Your task to perform on an android device: Show the shopping cart on costco.com. Add jbl flip 4 to the cart on costco.com Image 0: 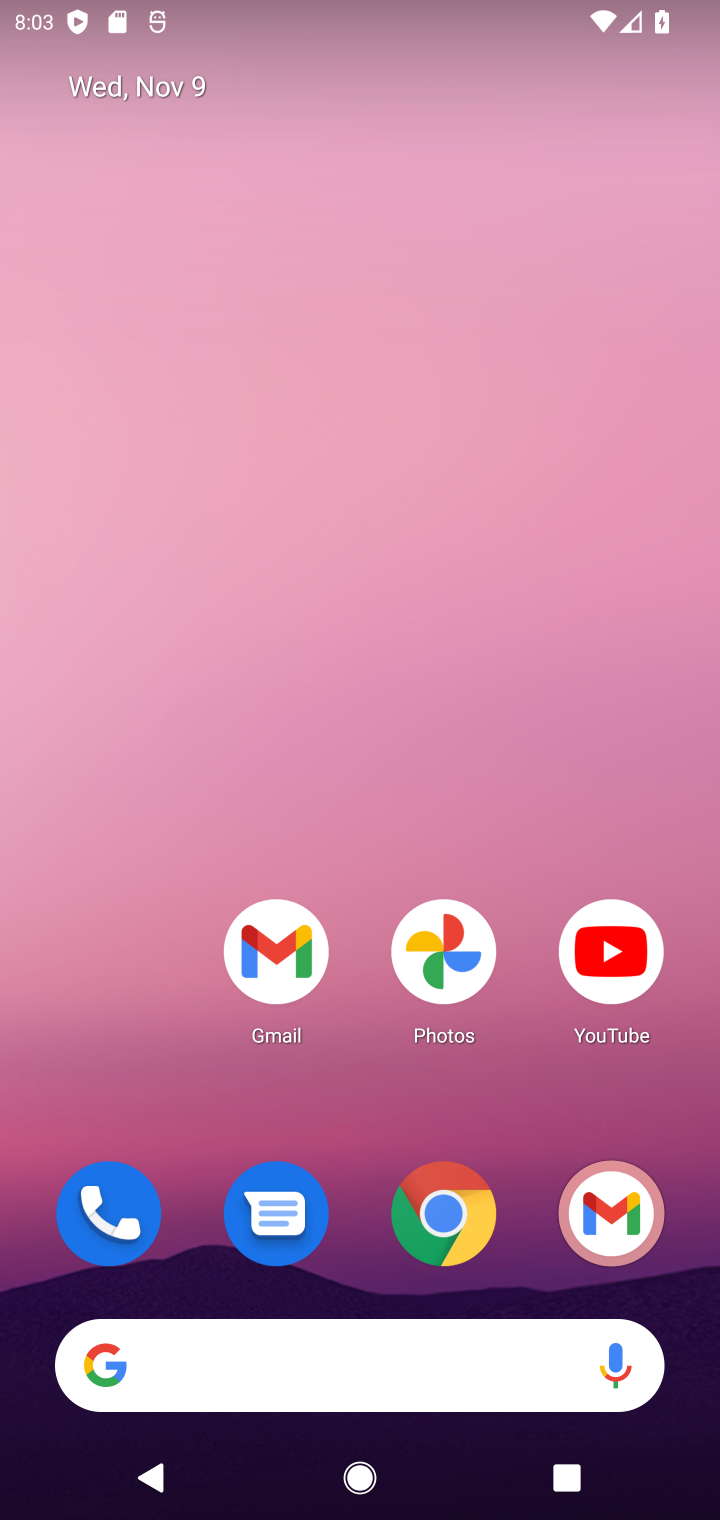
Step 0: click (454, 1206)
Your task to perform on an android device: Show the shopping cart on costco.com. Add jbl flip 4 to the cart on costco.com Image 1: 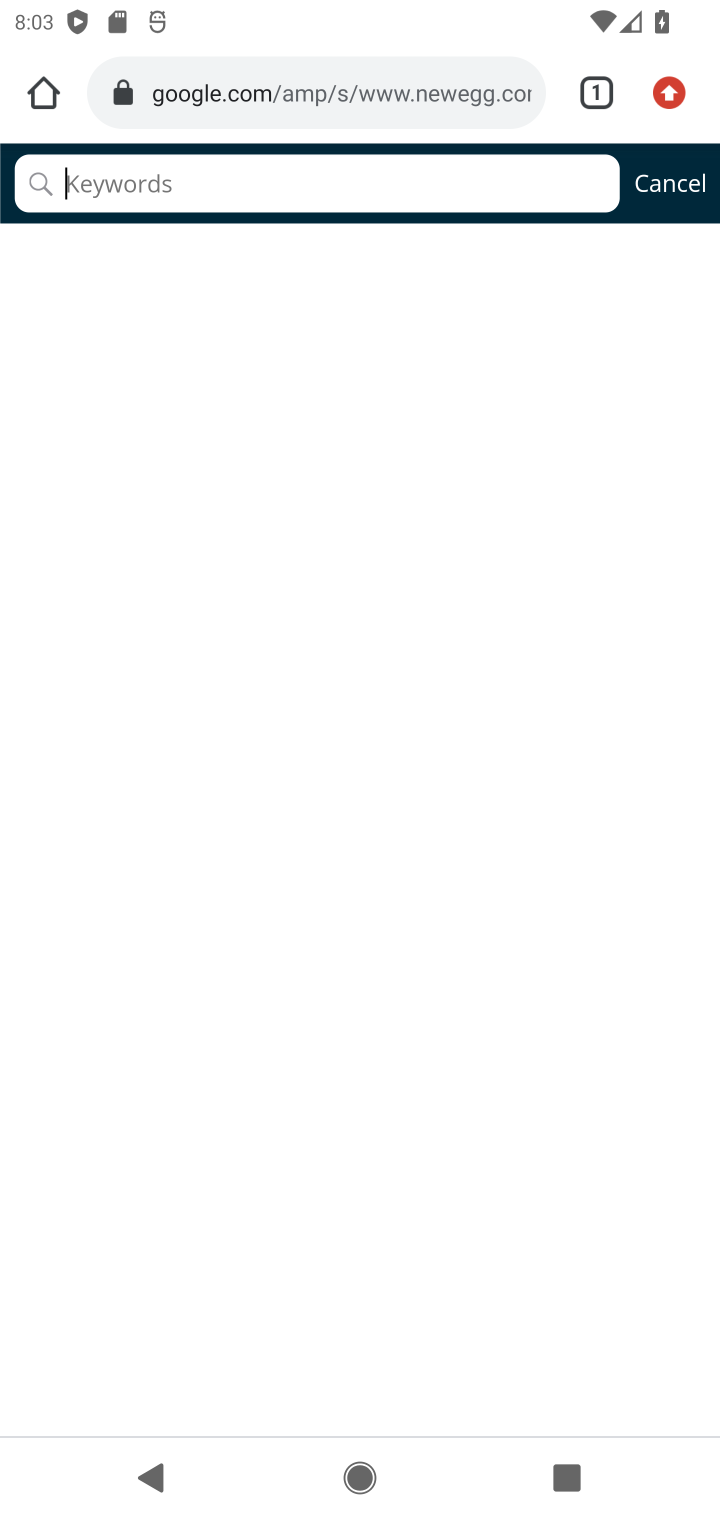
Step 1: click (326, 88)
Your task to perform on an android device: Show the shopping cart on costco.com. Add jbl flip 4 to the cart on costco.com Image 2: 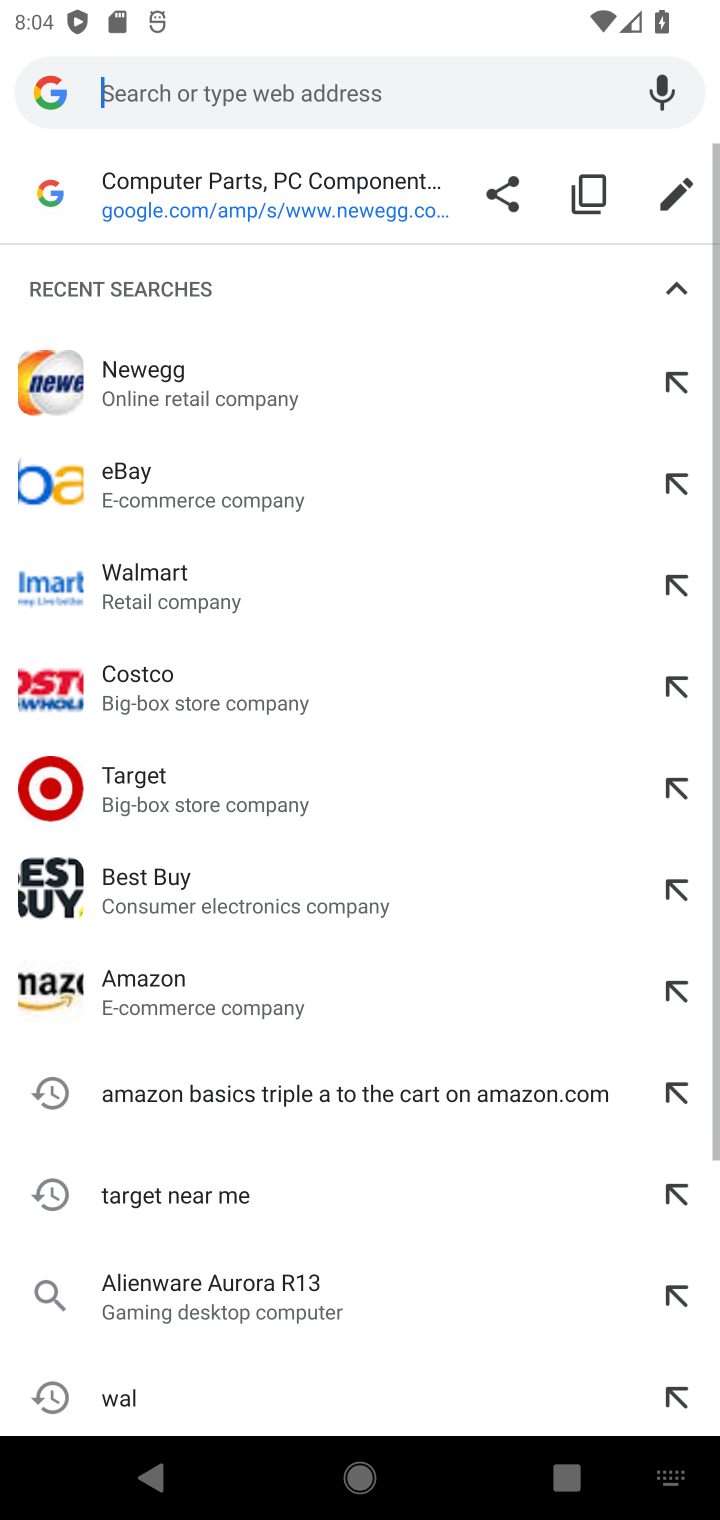
Step 2: click (149, 696)
Your task to perform on an android device: Show the shopping cart on costco.com. Add jbl flip 4 to the cart on costco.com Image 3: 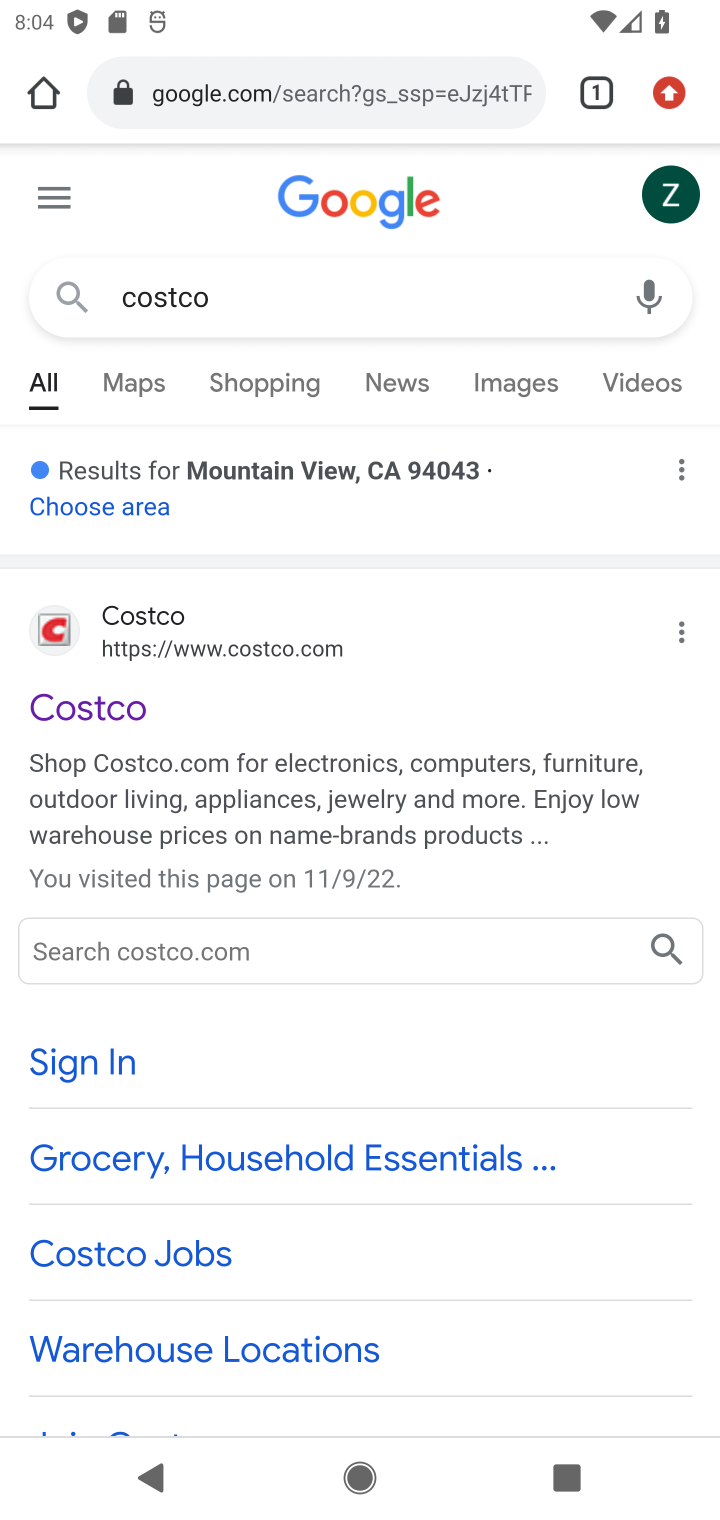
Step 3: click (128, 715)
Your task to perform on an android device: Show the shopping cart on costco.com. Add jbl flip 4 to the cart on costco.com Image 4: 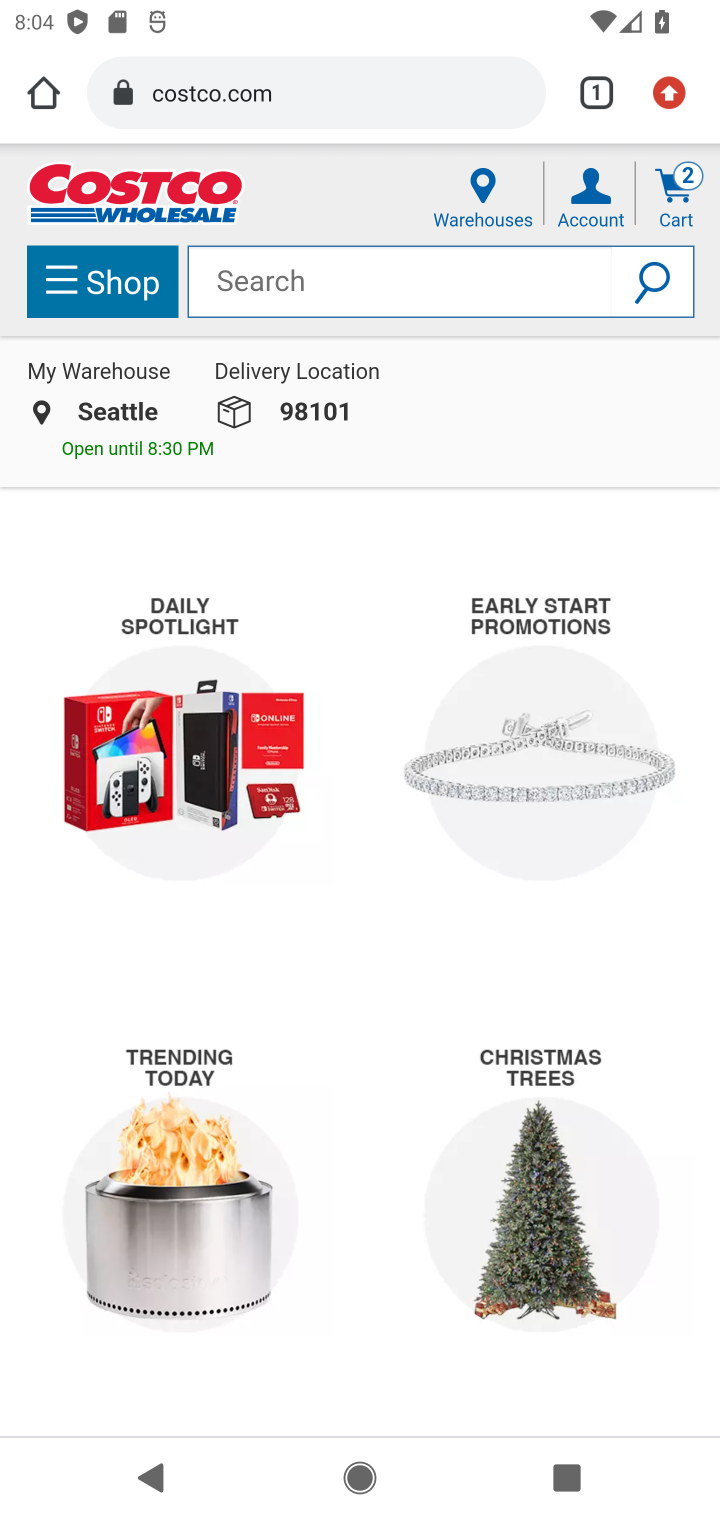
Step 4: click (269, 283)
Your task to perform on an android device: Show the shopping cart on costco.com. Add jbl flip 4 to the cart on costco.com Image 5: 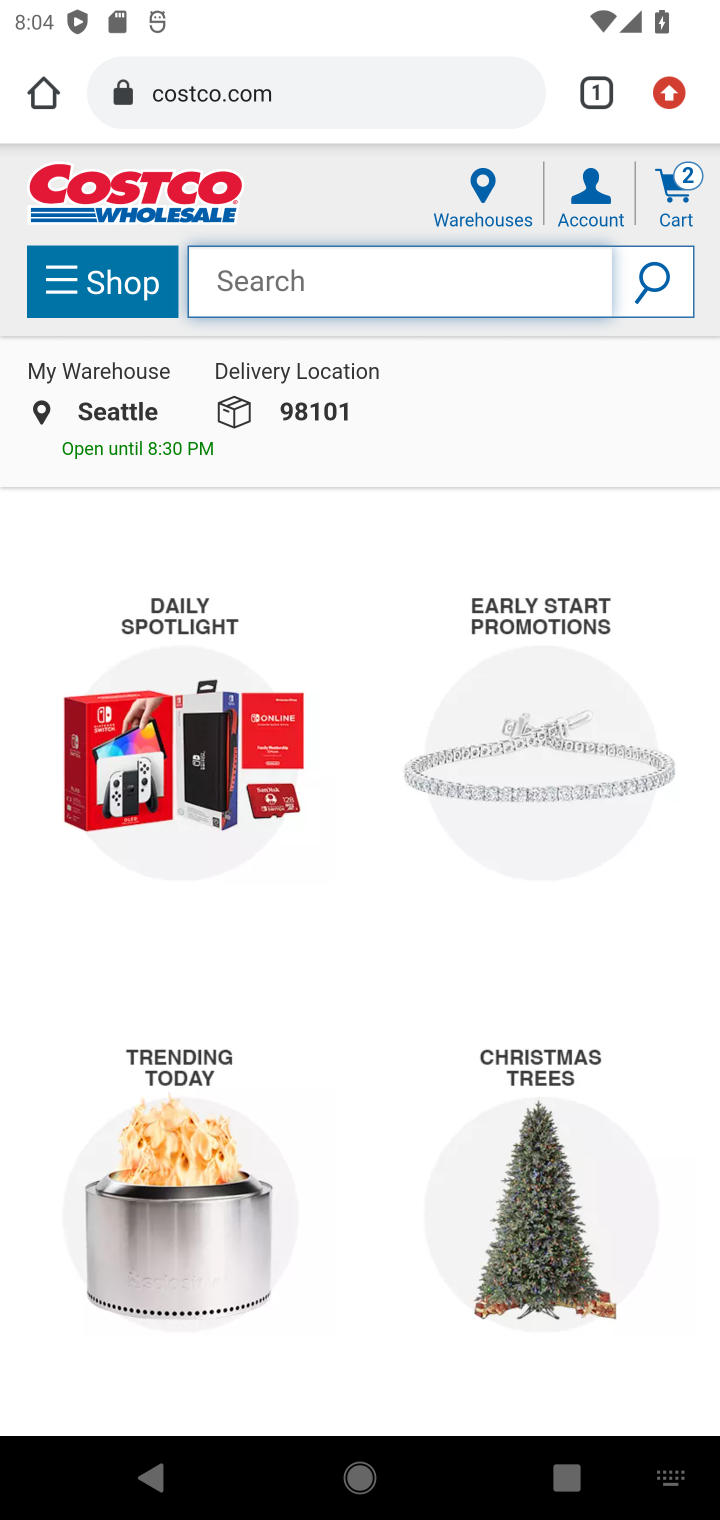
Step 5: type "costco"
Your task to perform on an android device: Show the shopping cart on costco.com. Add jbl flip 4 to the cart on costco.com Image 6: 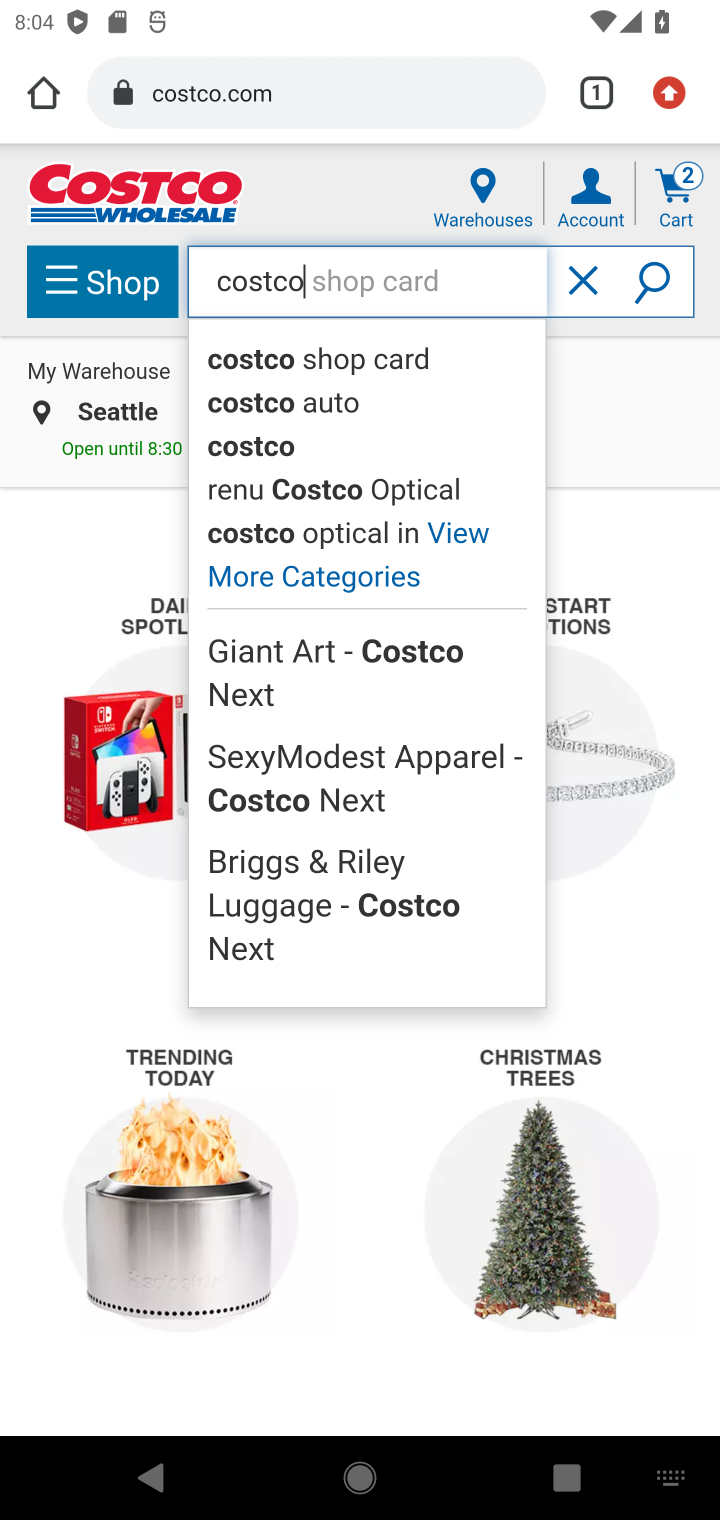
Step 6: click (273, 444)
Your task to perform on an android device: Show the shopping cart on costco.com. Add jbl flip 4 to the cart on costco.com Image 7: 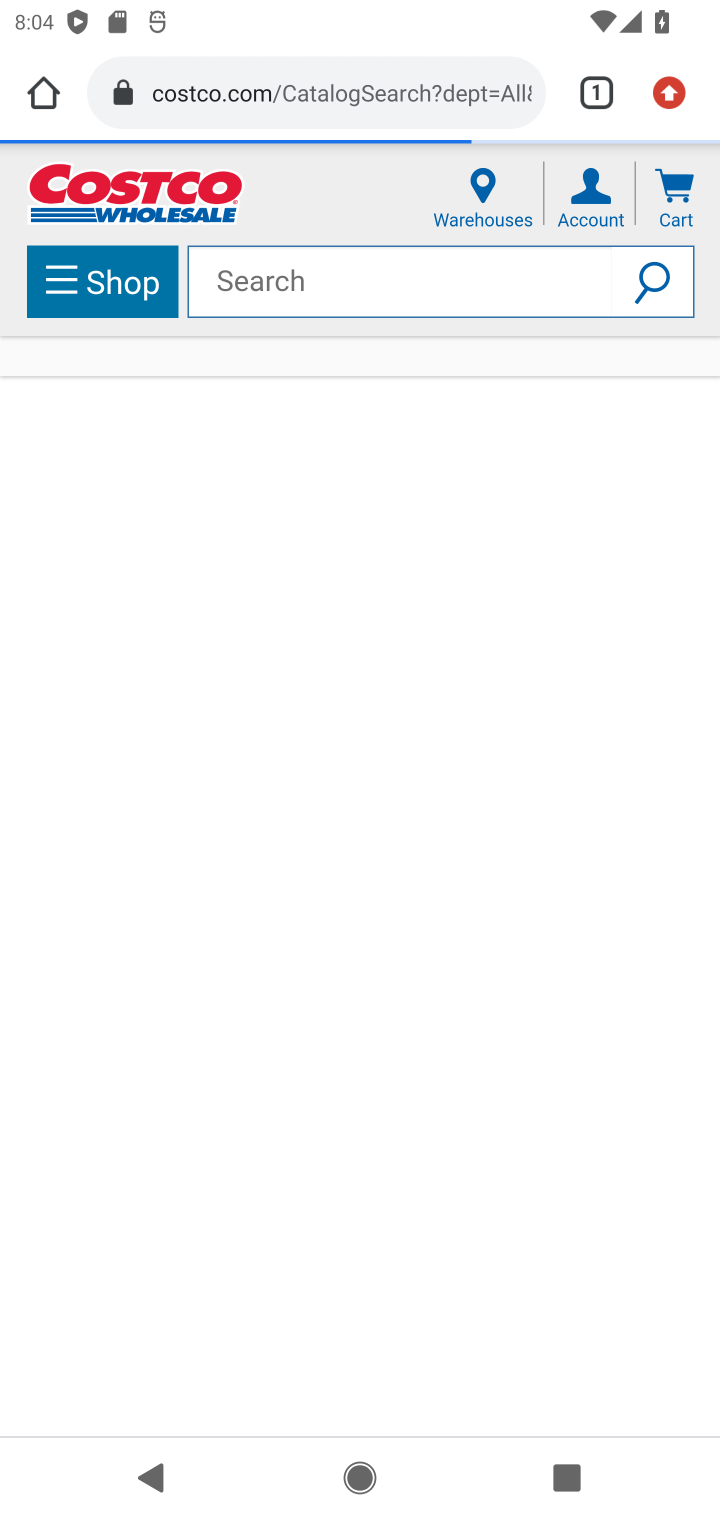
Step 7: click (645, 275)
Your task to perform on an android device: Show the shopping cart on costco.com. Add jbl flip 4 to the cart on costco.com Image 8: 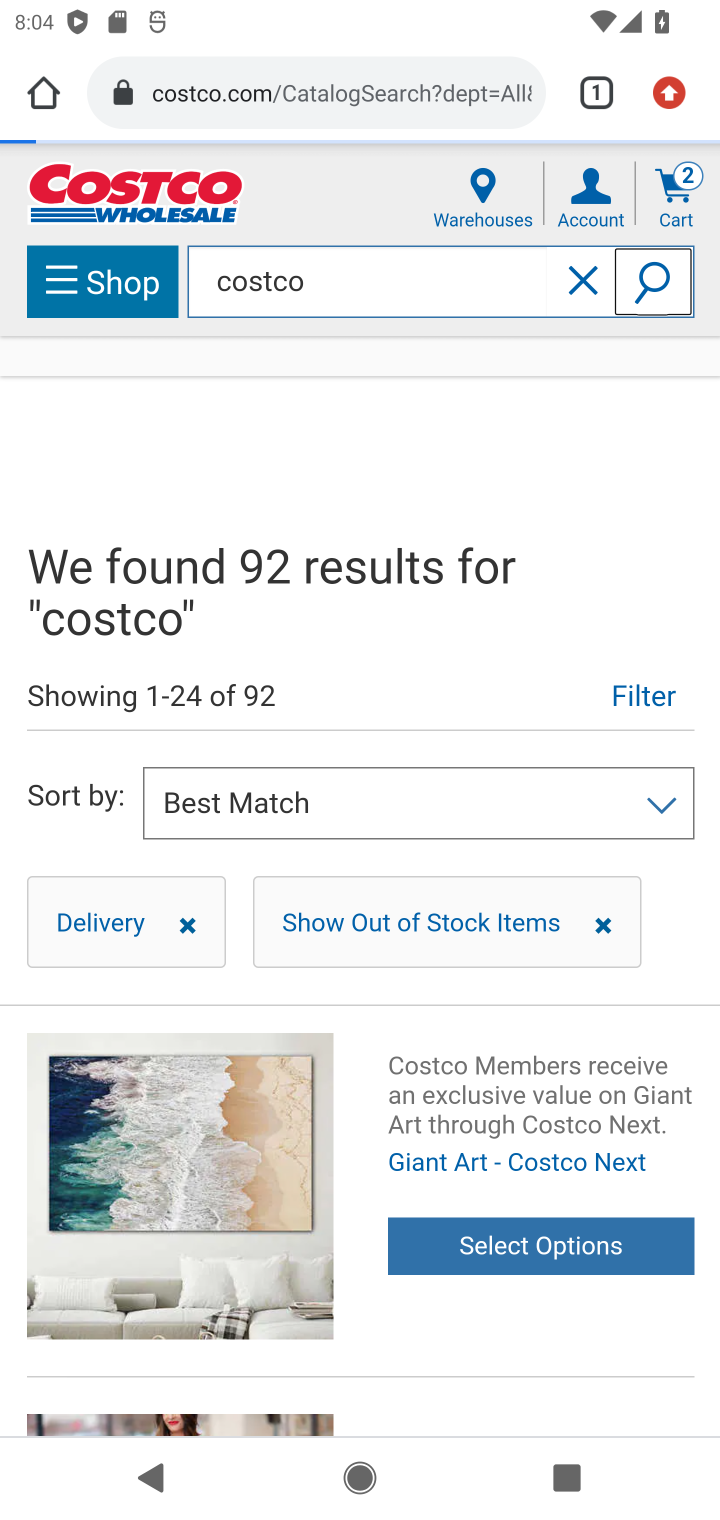
Step 8: drag from (294, 1172) to (346, 252)
Your task to perform on an android device: Show the shopping cart on costco.com. Add jbl flip 4 to the cart on costco.com Image 9: 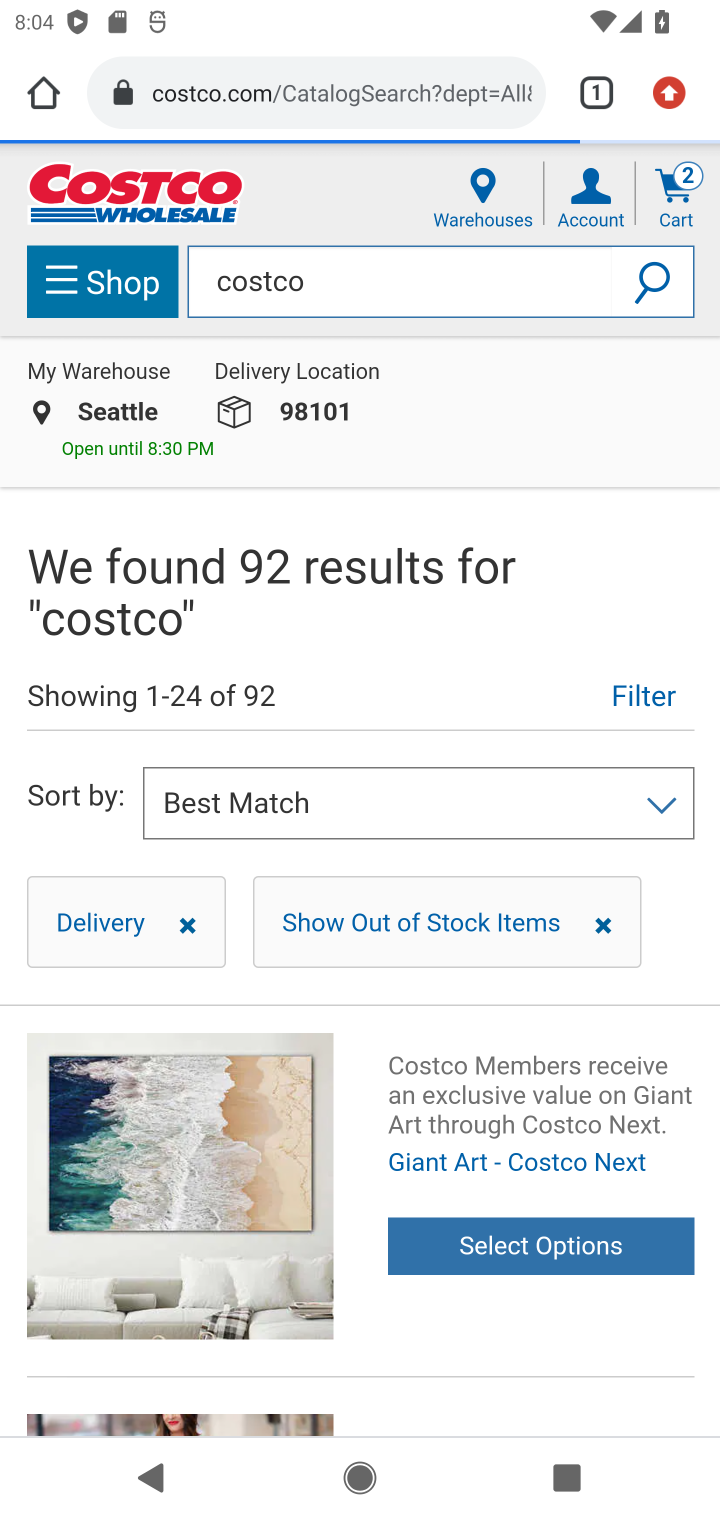
Step 9: drag from (335, 892) to (372, 409)
Your task to perform on an android device: Show the shopping cart on costco.com. Add jbl flip 4 to the cart on costco.com Image 10: 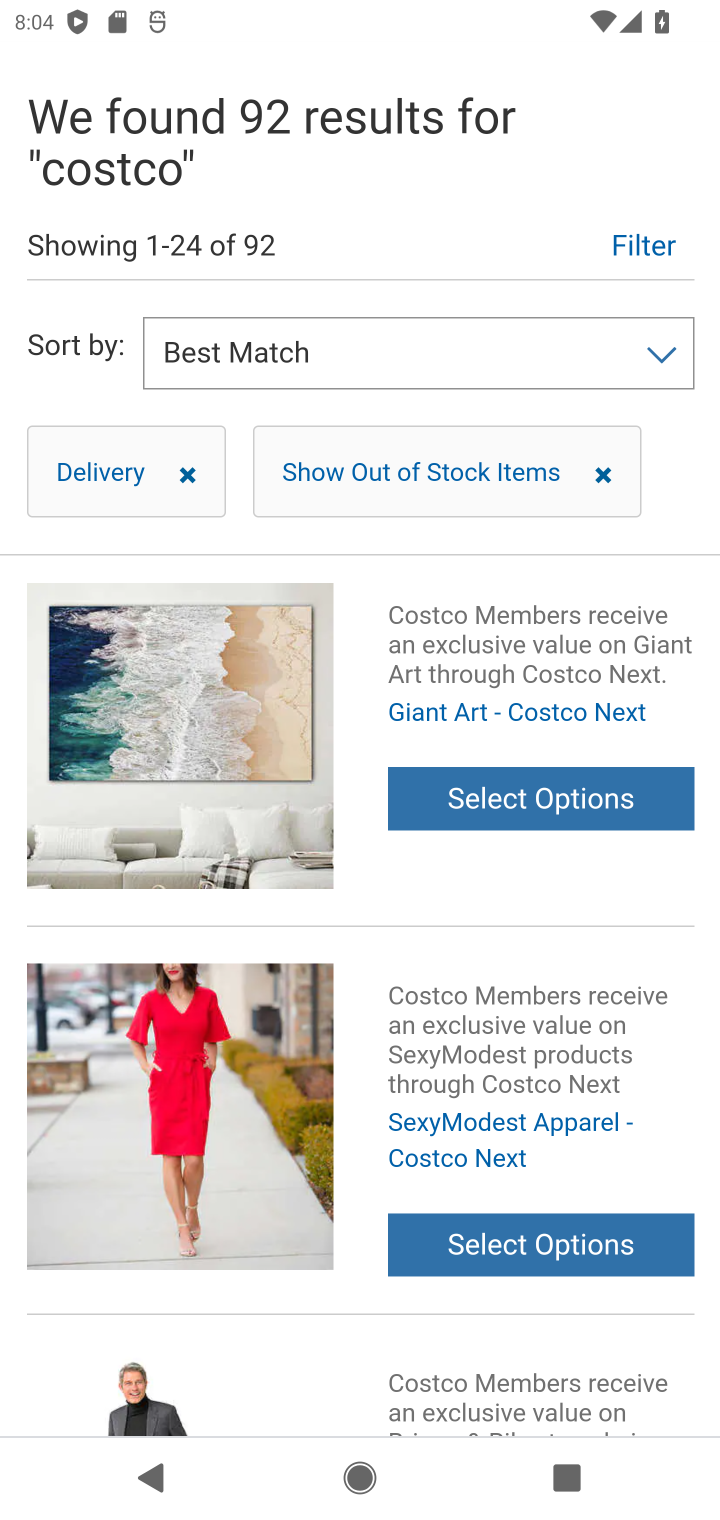
Step 10: click (471, 638)
Your task to perform on an android device: Show the shopping cart on costco.com. Add jbl flip 4 to the cart on costco.com Image 11: 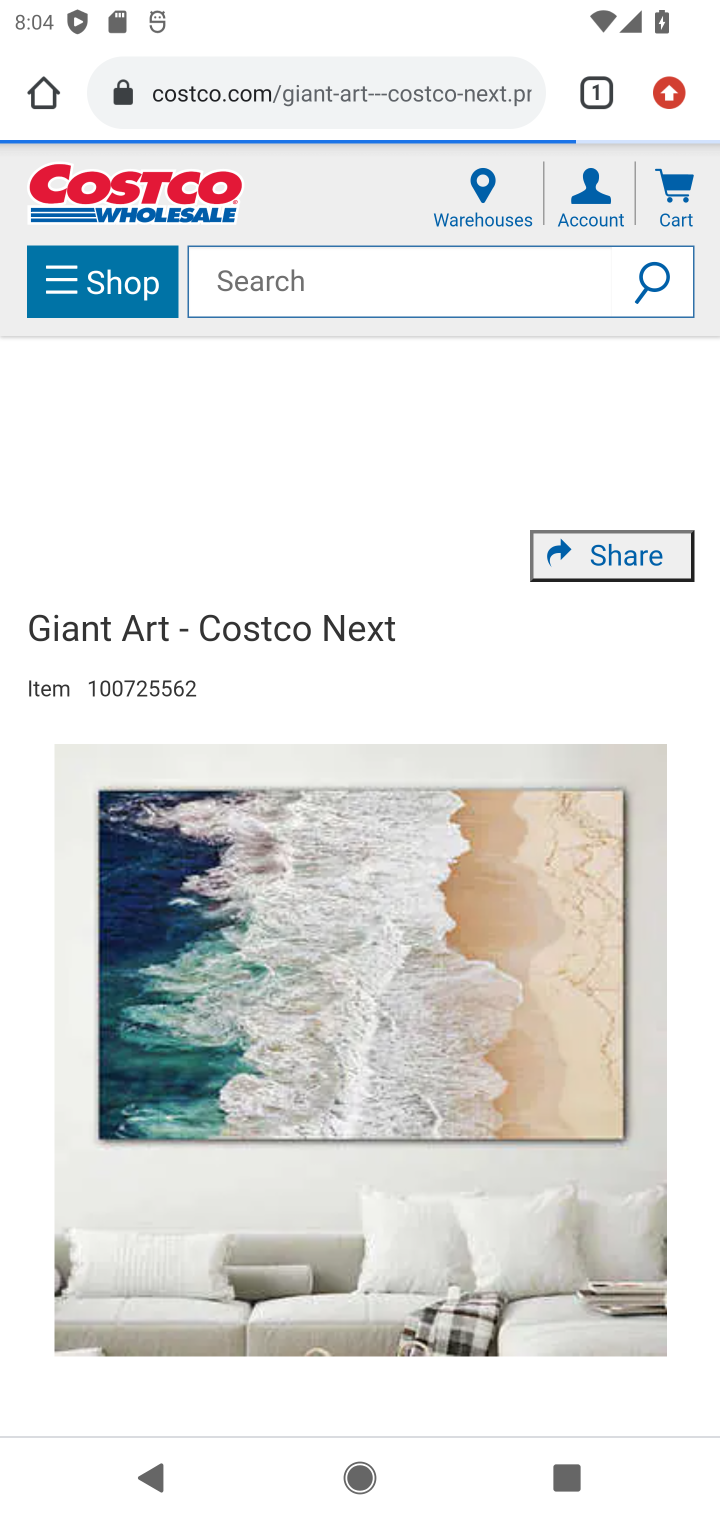
Step 11: drag from (422, 1010) to (419, 214)
Your task to perform on an android device: Show the shopping cart on costco.com. Add jbl flip 4 to the cart on costco.com Image 12: 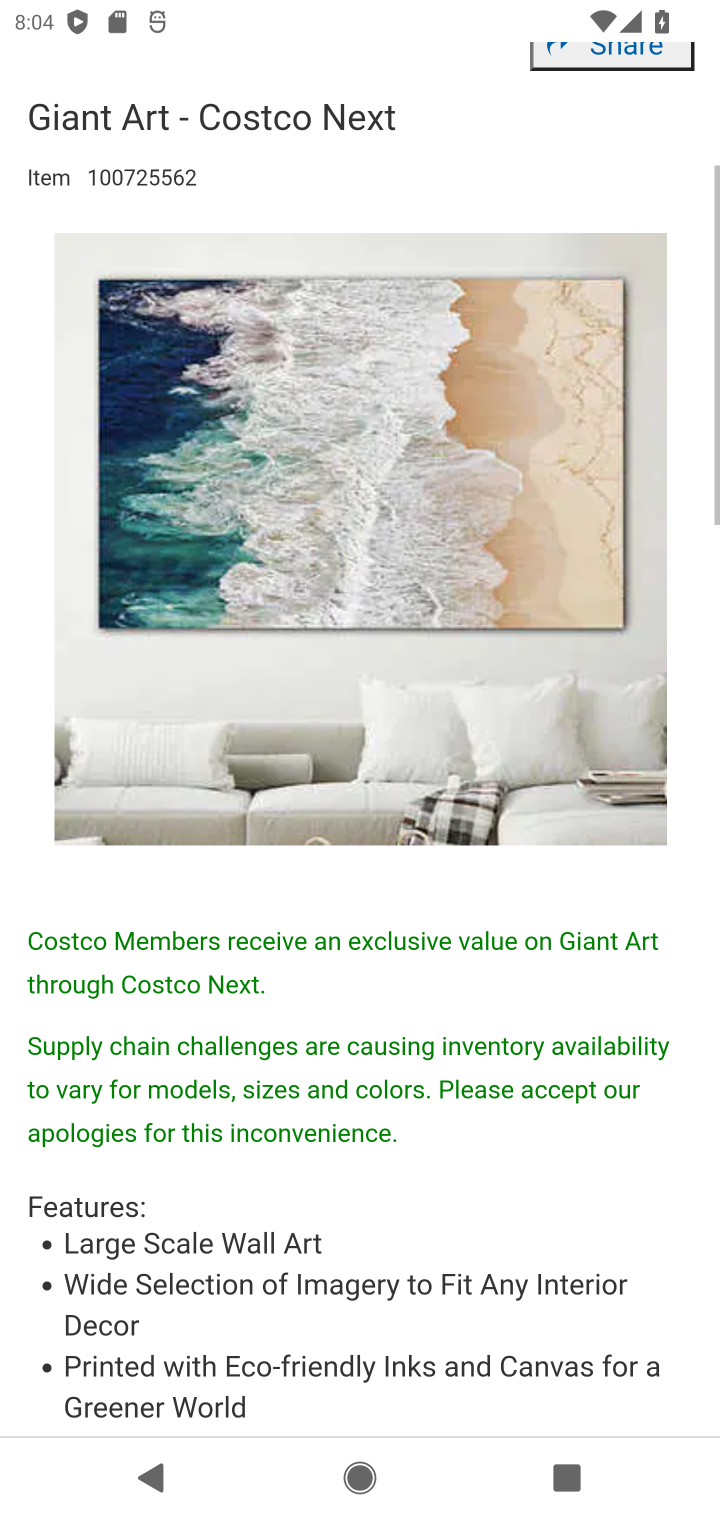
Step 12: drag from (204, 1136) to (249, 222)
Your task to perform on an android device: Show the shopping cart on costco.com. Add jbl flip 4 to the cart on costco.com Image 13: 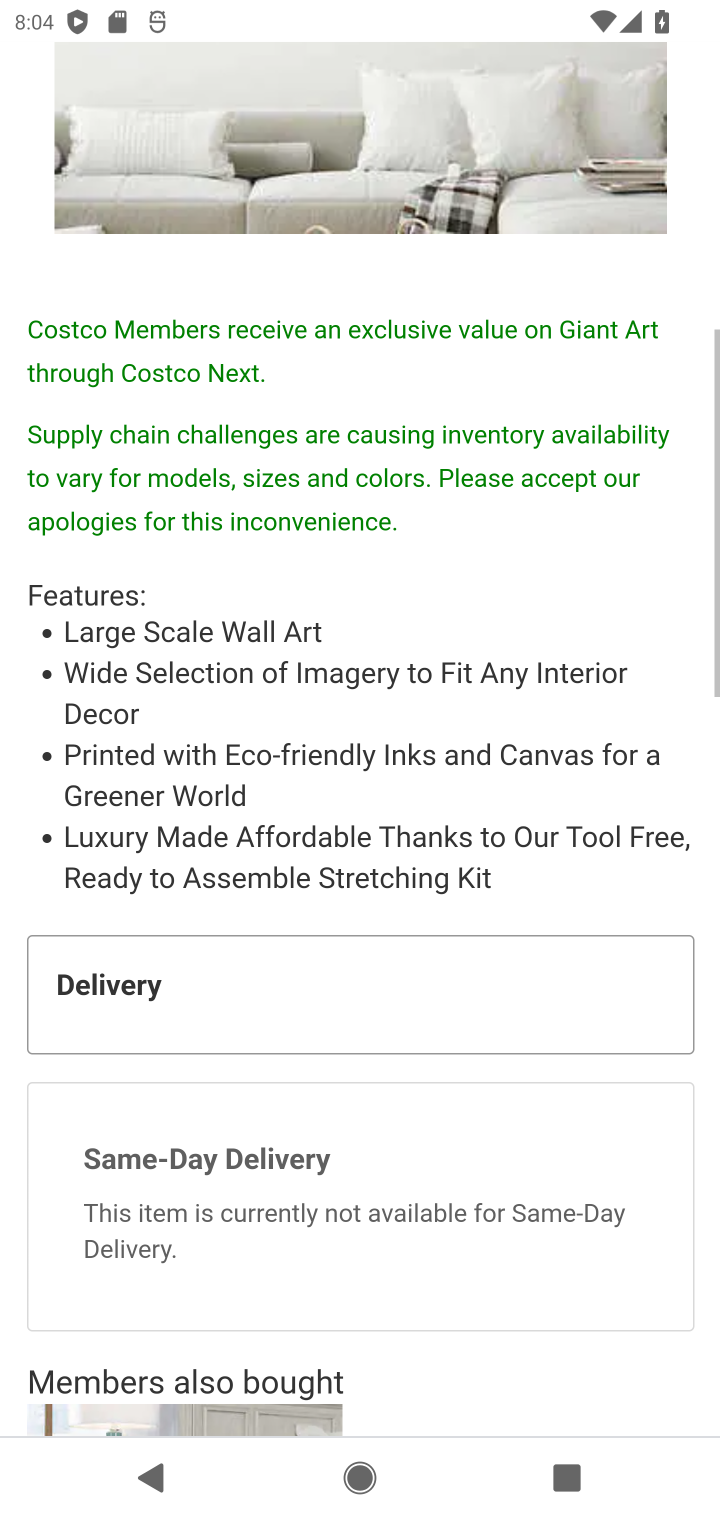
Step 13: drag from (206, 1152) to (161, 378)
Your task to perform on an android device: Show the shopping cart on costco.com. Add jbl flip 4 to the cart on costco.com Image 14: 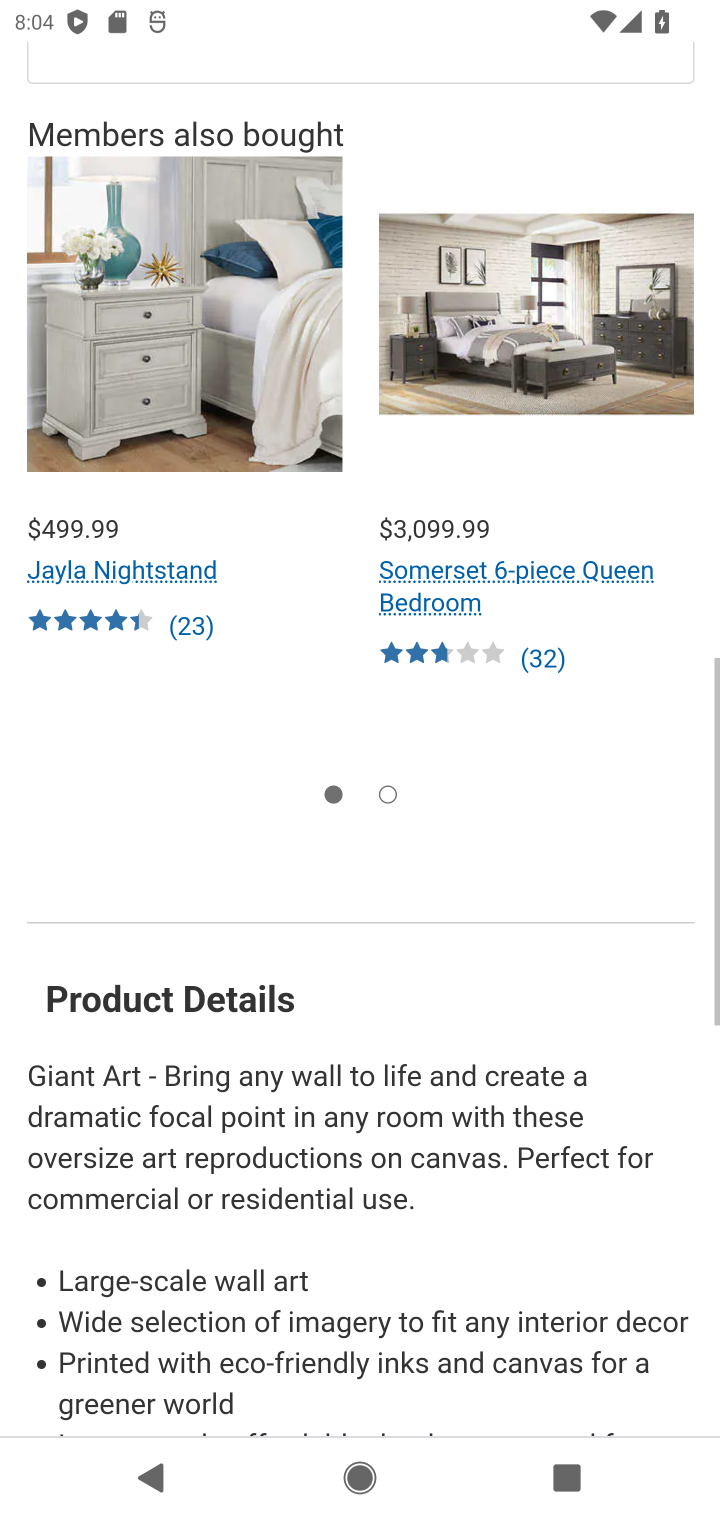
Step 14: drag from (209, 1236) to (238, 282)
Your task to perform on an android device: Show the shopping cart on costco.com. Add jbl flip 4 to the cart on costco.com Image 15: 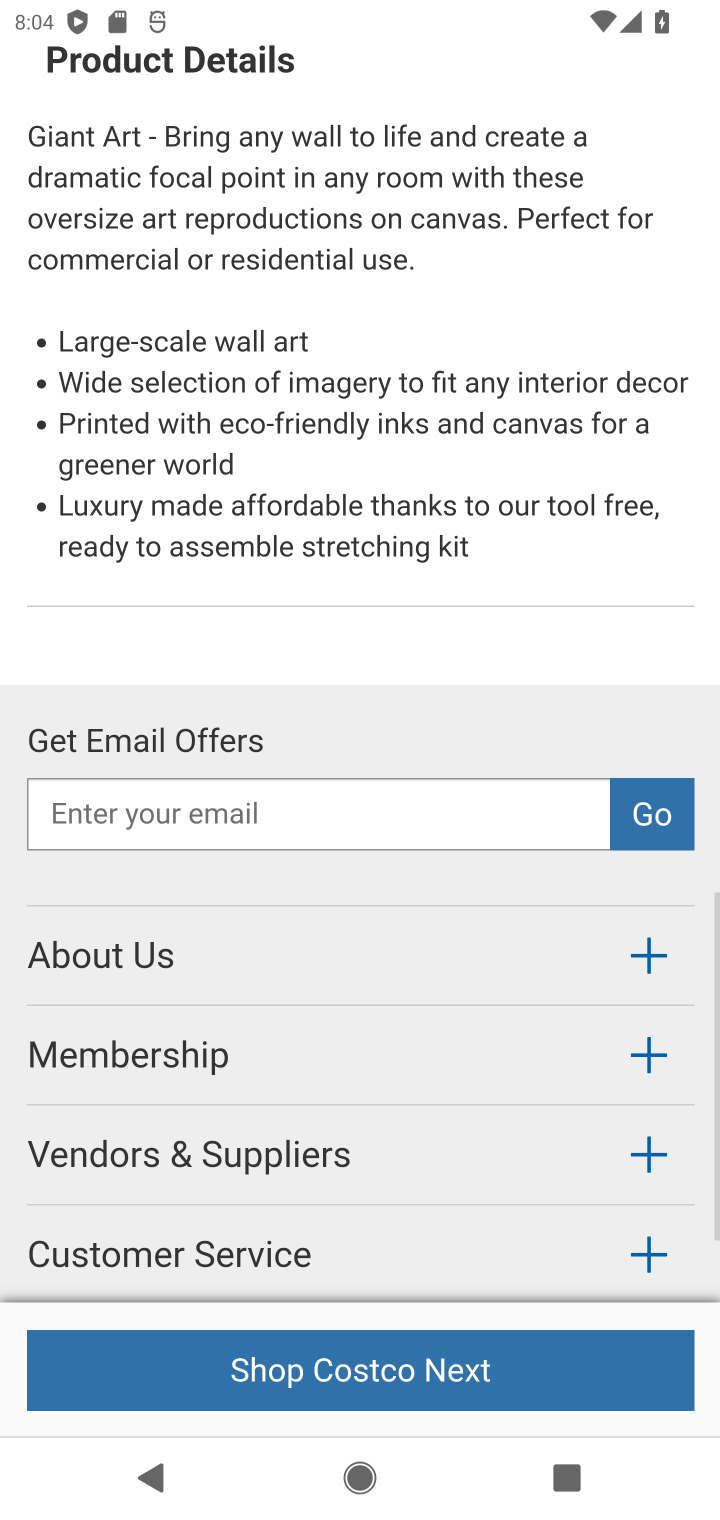
Step 15: drag from (200, 945) to (237, 369)
Your task to perform on an android device: Show the shopping cart on costco.com. Add jbl flip 4 to the cart on costco.com Image 16: 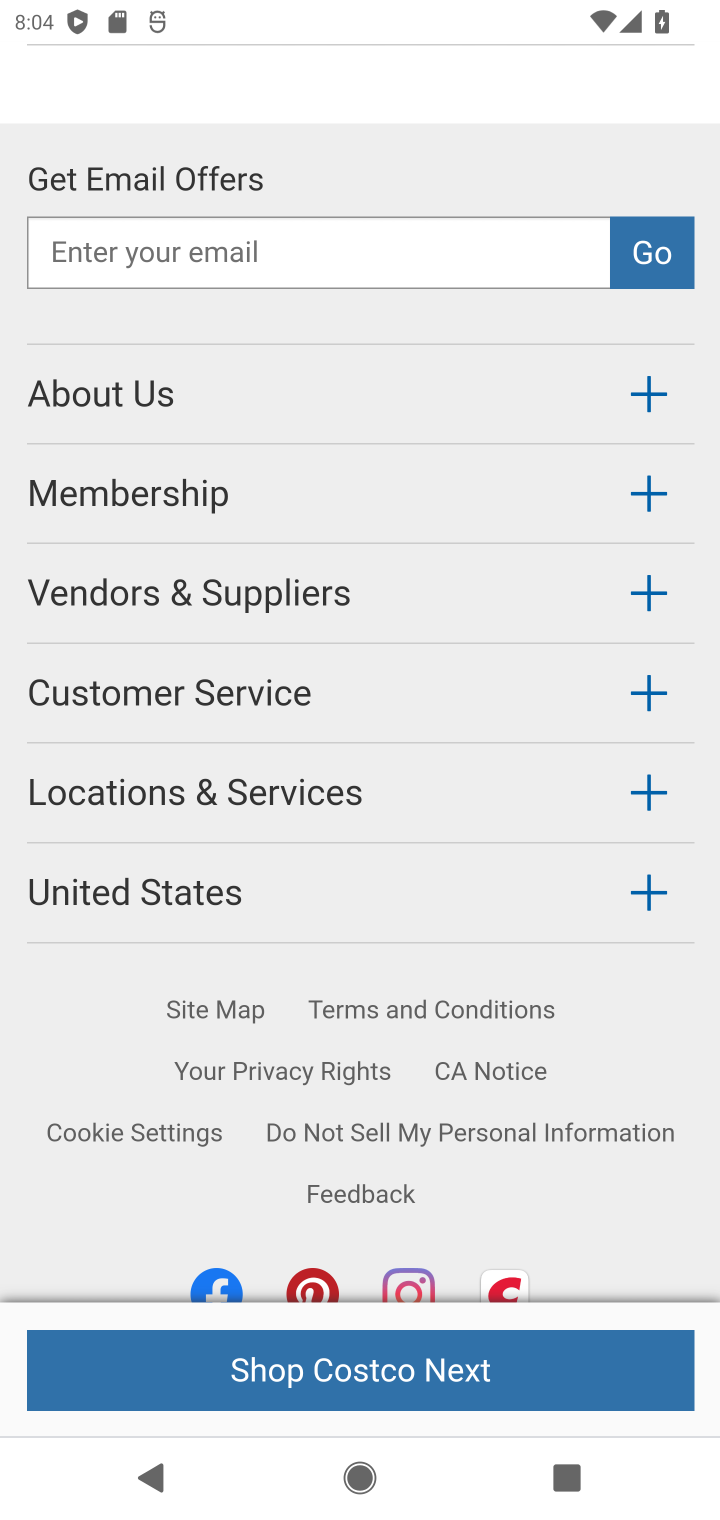
Step 16: click (388, 1372)
Your task to perform on an android device: Show the shopping cart on costco.com. Add jbl flip 4 to the cart on costco.com Image 17: 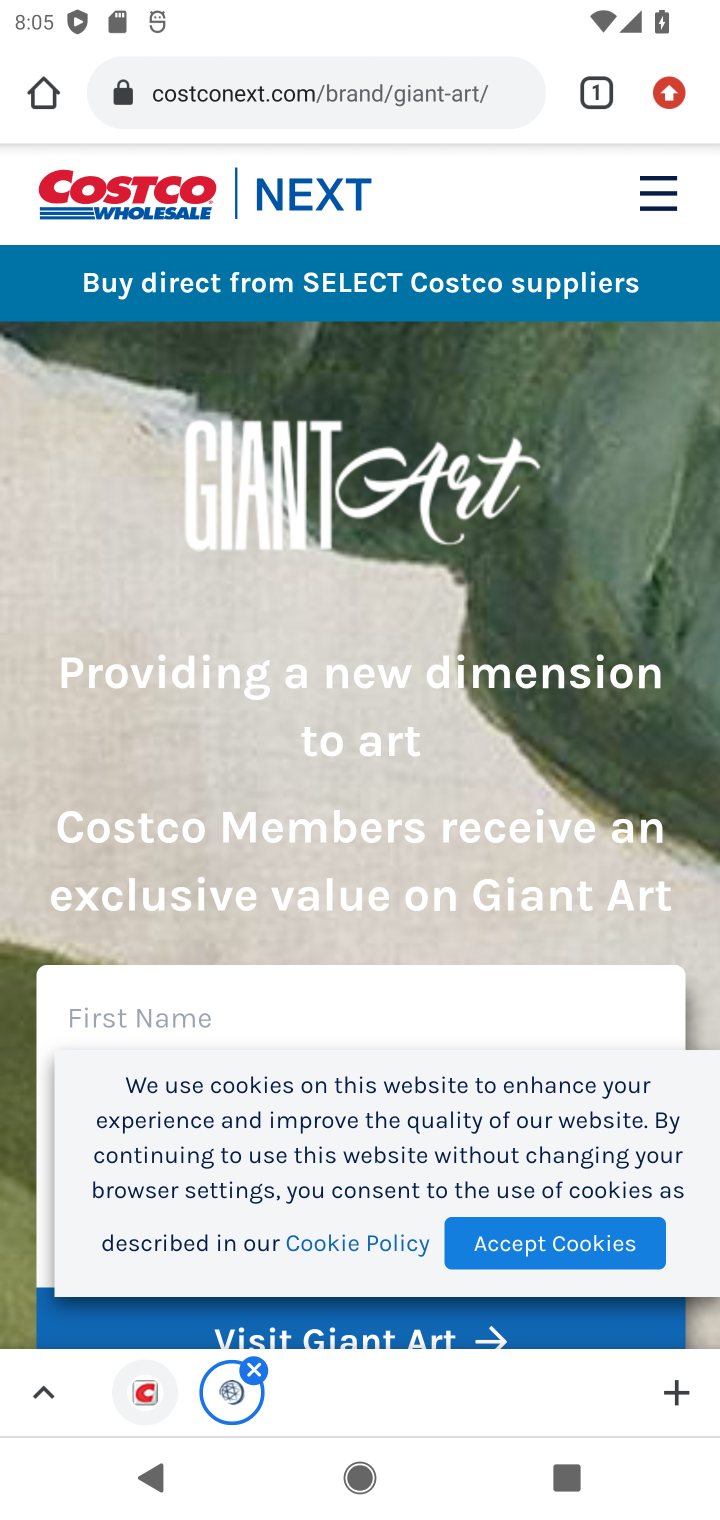
Step 17: task complete